Your task to perform on an android device: Search for flights from San Diego to Seattle Image 0: 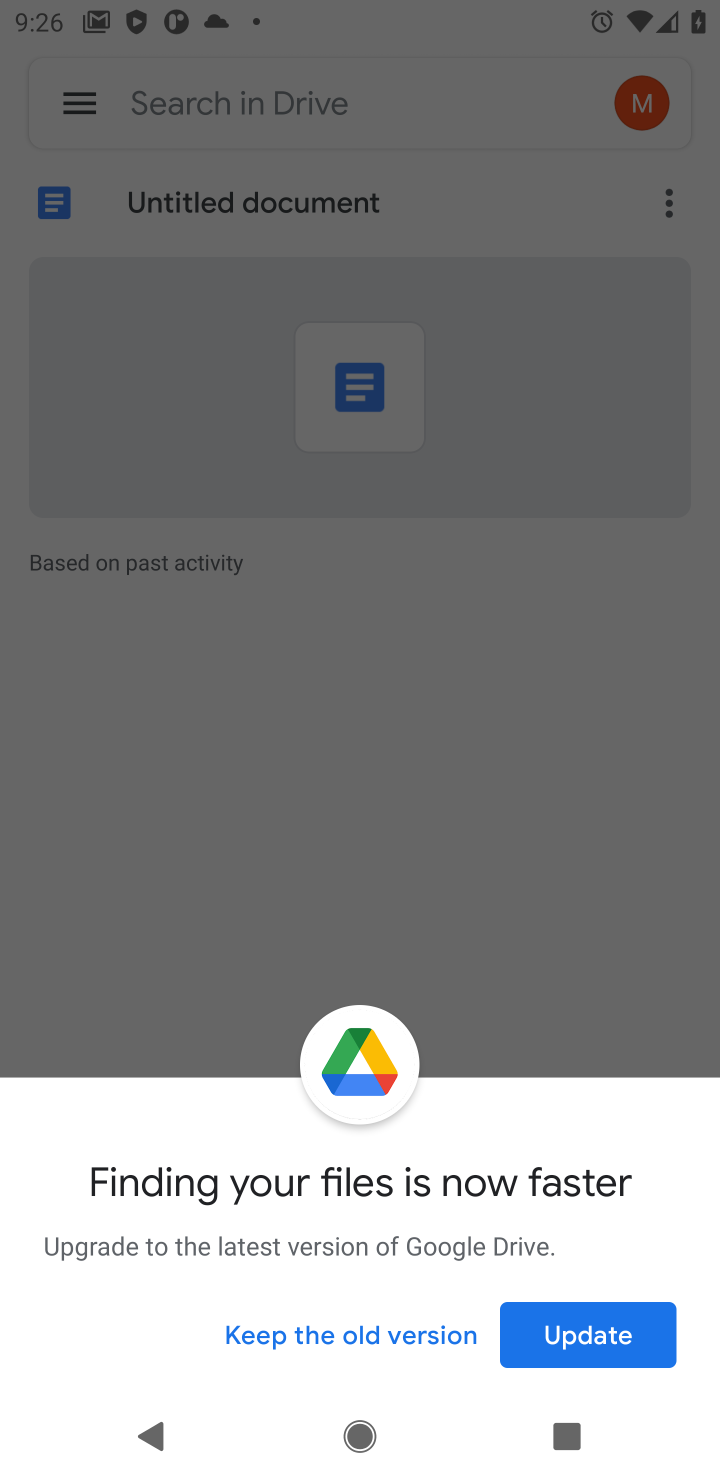
Step 0: press home button
Your task to perform on an android device: Search for flights from San Diego to Seattle Image 1: 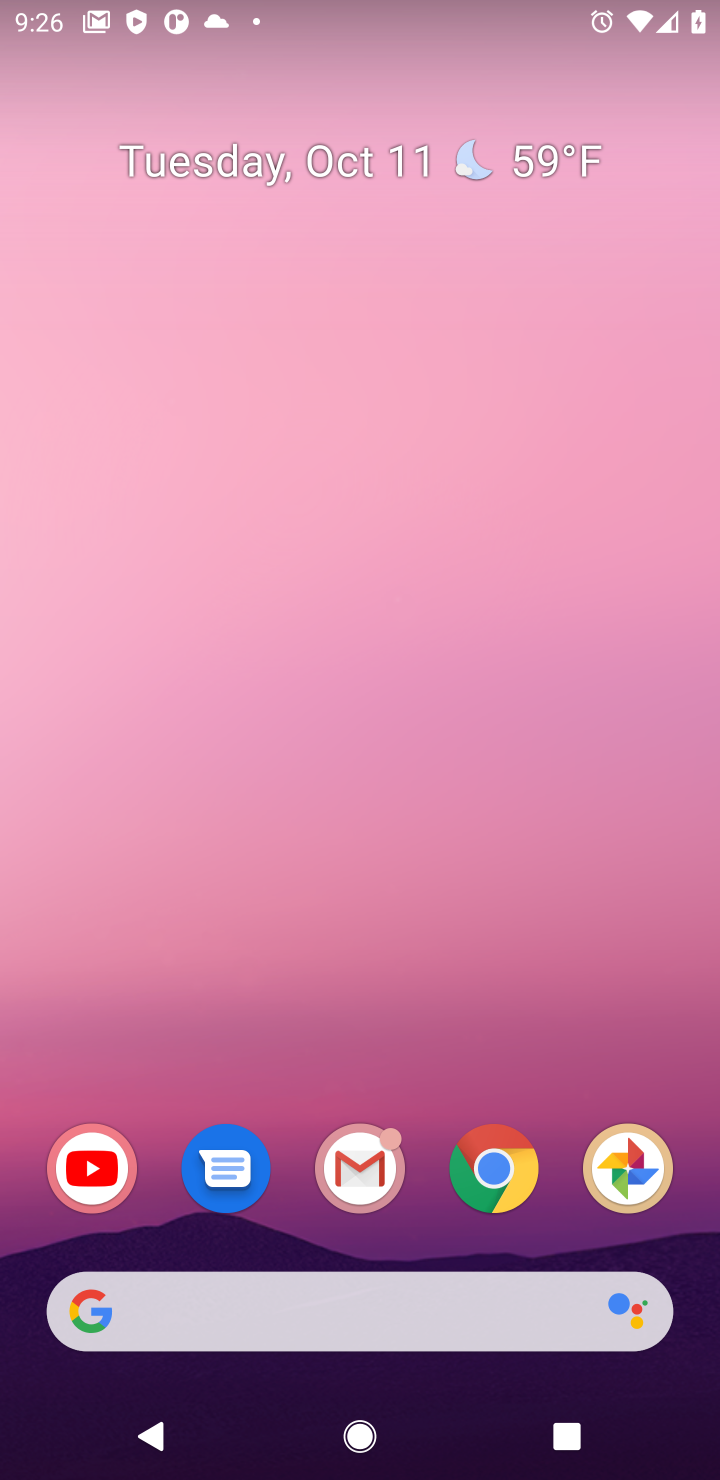
Step 1: click (469, 1156)
Your task to perform on an android device: Search for flights from San Diego to Seattle Image 2: 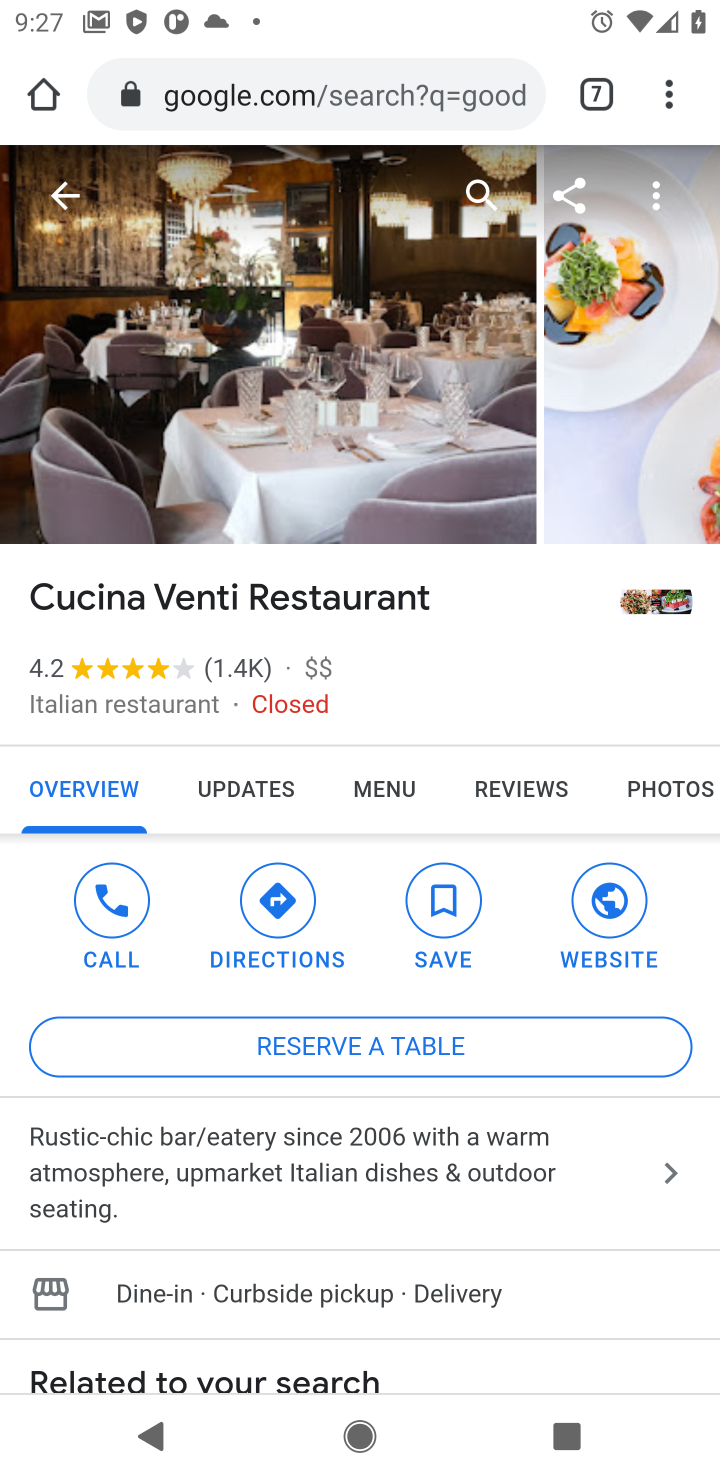
Step 2: click (285, 99)
Your task to perform on an android device: Search for flights from San Diego to Seattle Image 3: 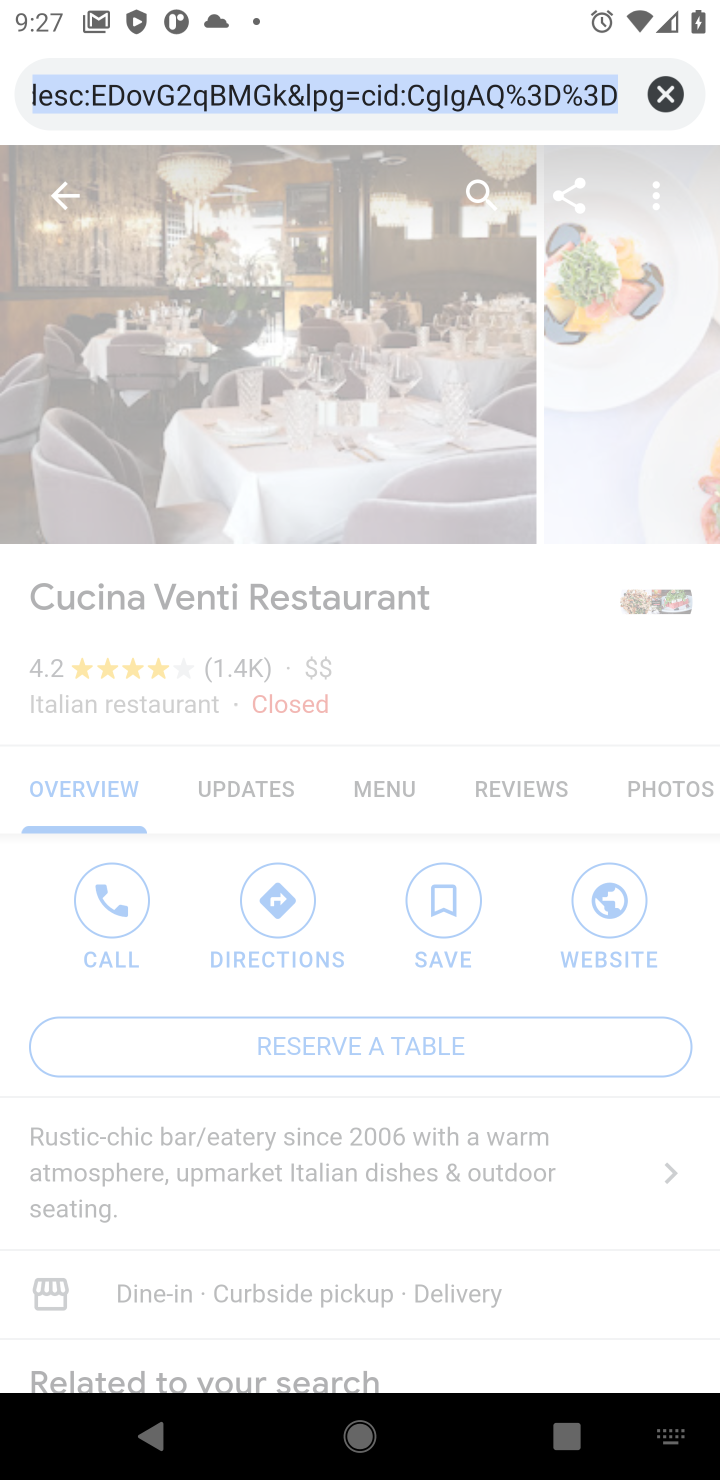
Step 3: click (661, 94)
Your task to perform on an android device: Search for flights from San Diego to Seattle Image 4: 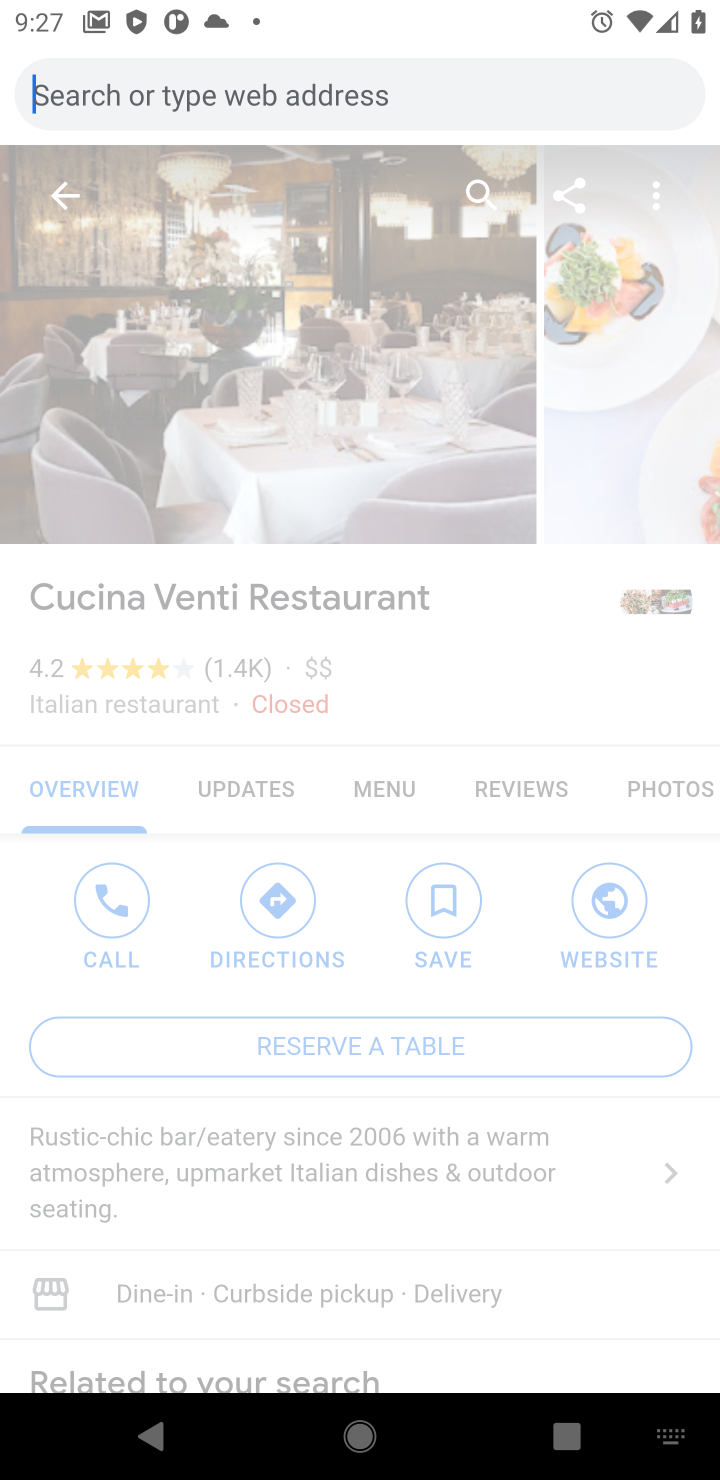
Step 4: type "flight from san diego to seatle"
Your task to perform on an android device: Search for flights from San Diego to Seattle Image 5: 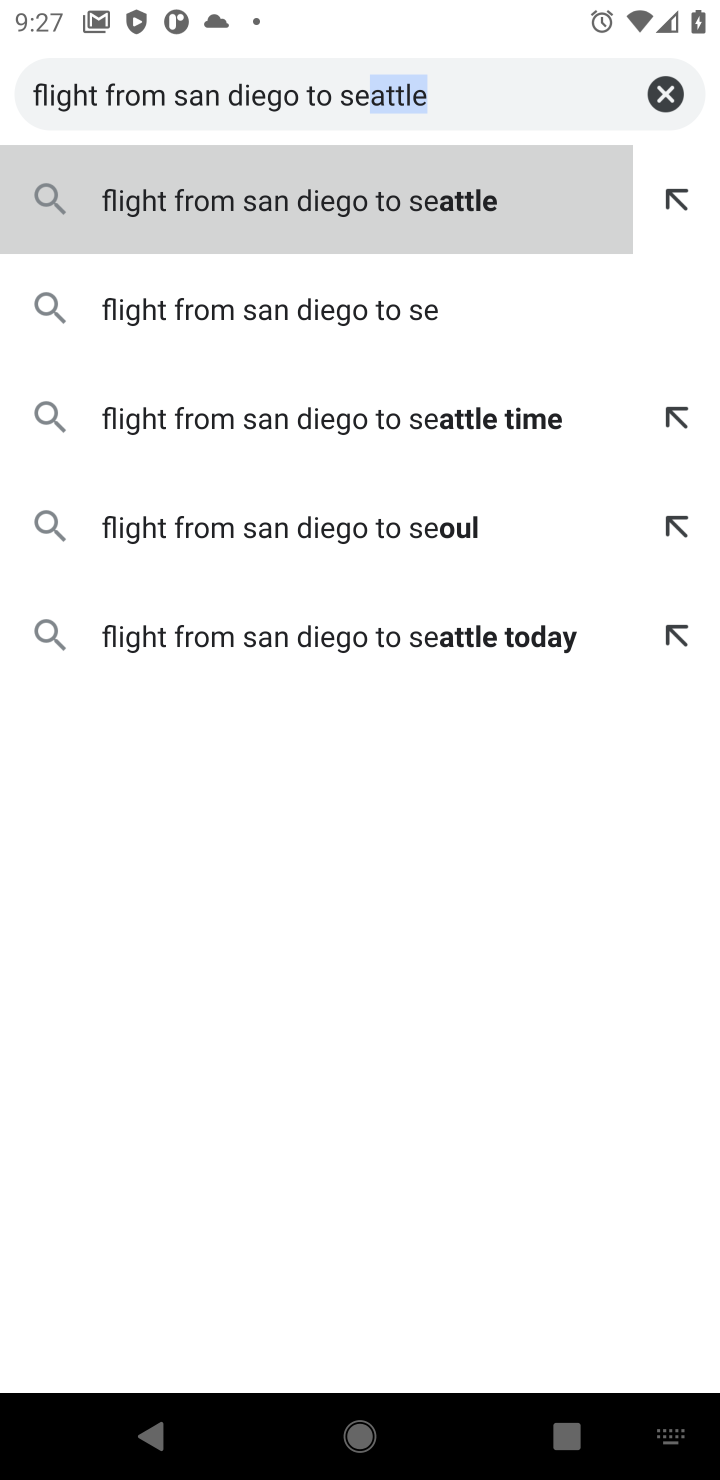
Step 5: click (435, 219)
Your task to perform on an android device: Search for flights from San Diego to Seattle Image 6: 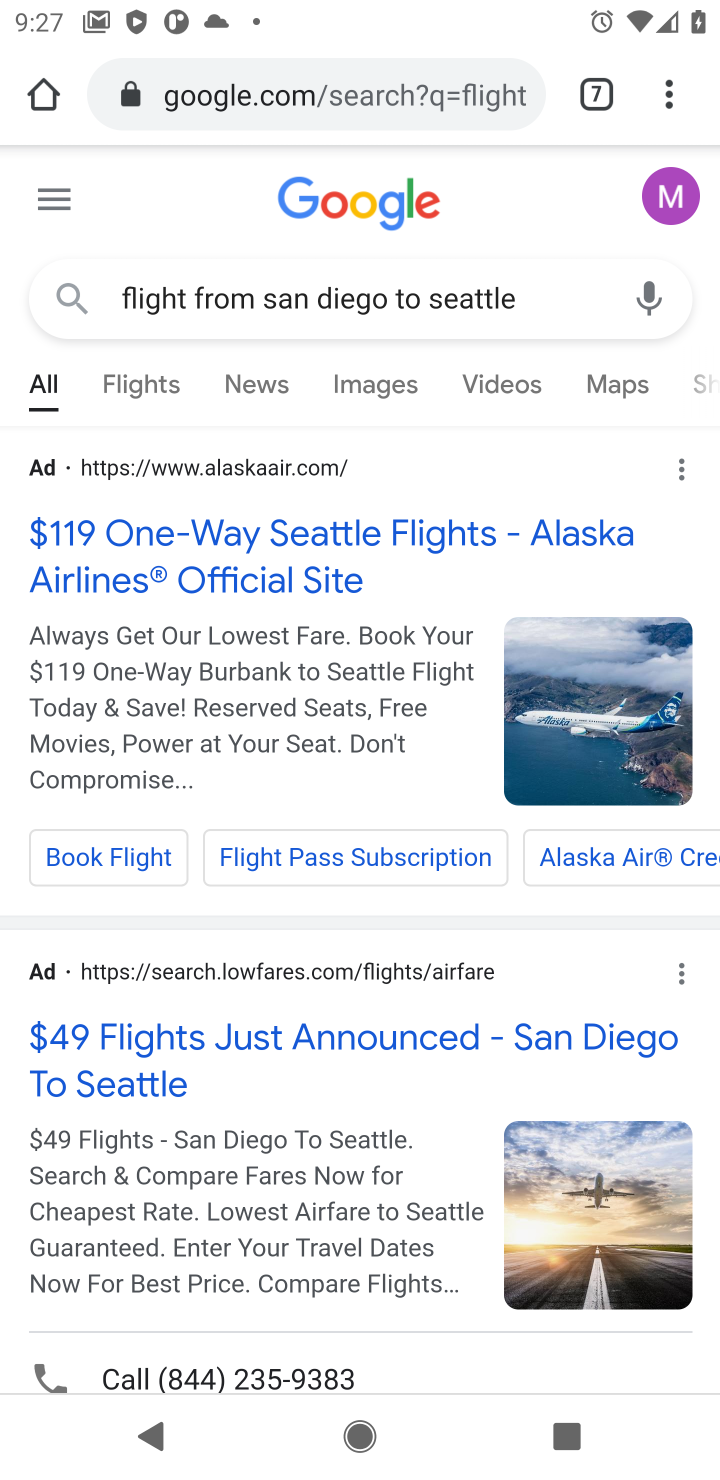
Step 6: drag from (353, 1168) to (431, 371)
Your task to perform on an android device: Search for flights from San Diego to Seattle Image 7: 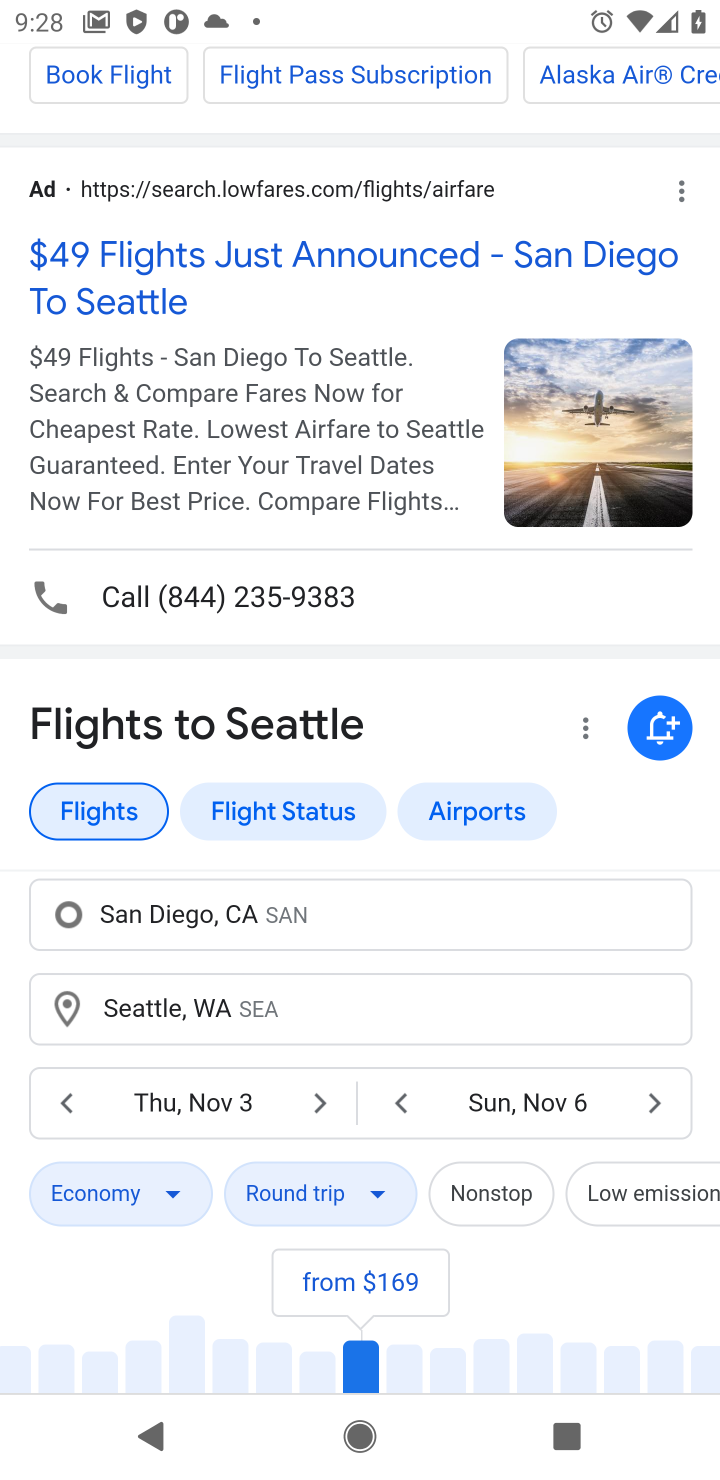
Step 7: drag from (279, 1156) to (435, 578)
Your task to perform on an android device: Search for flights from San Diego to Seattle Image 8: 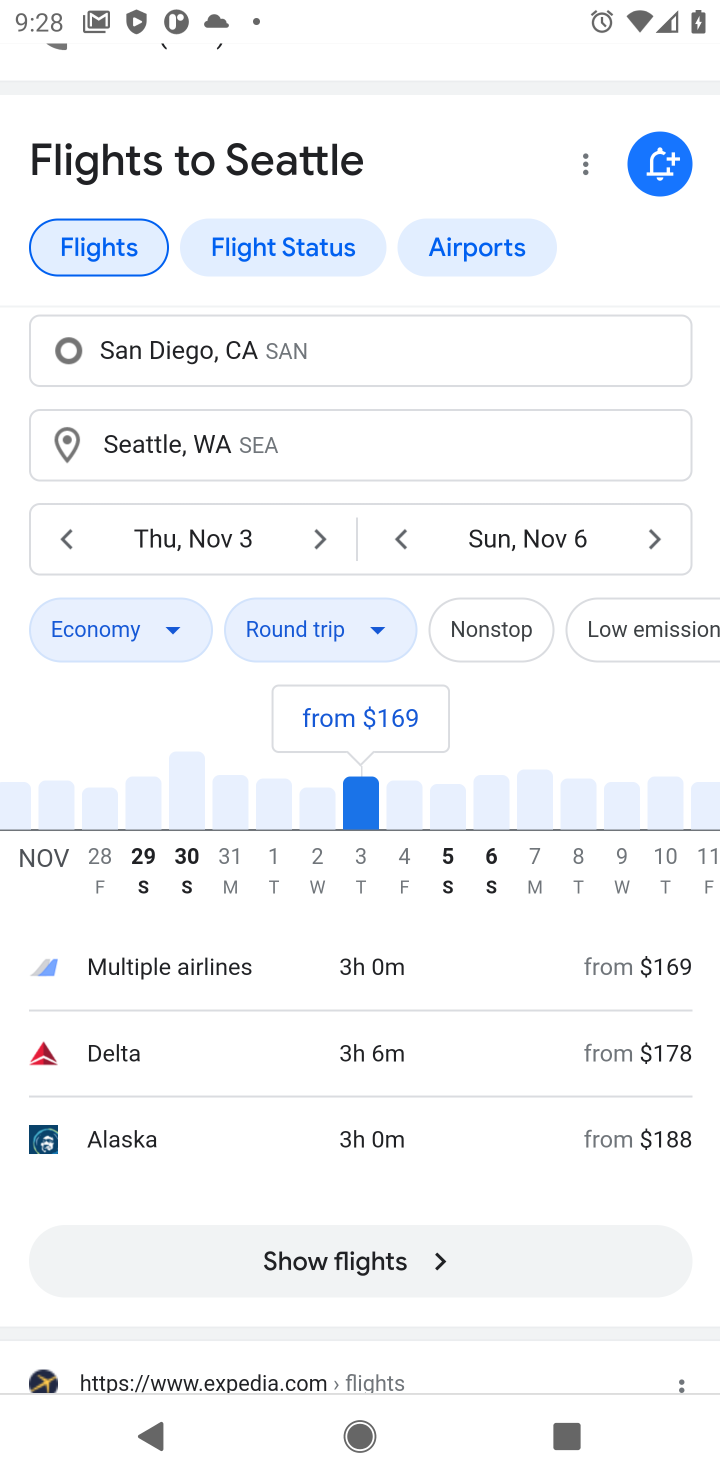
Step 8: click (321, 1257)
Your task to perform on an android device: Search for flights from San Diego to Seattle Image 9: 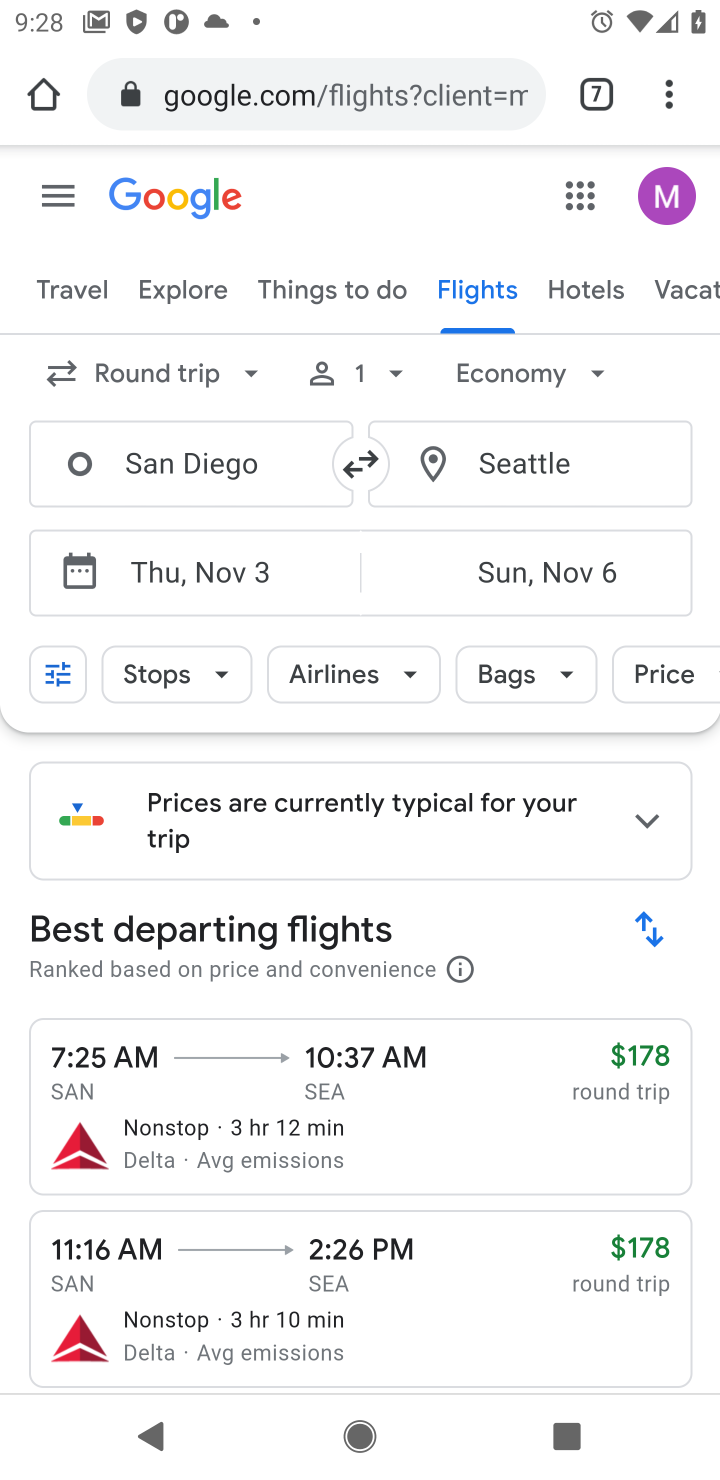
Step 9: task complete